Your task to perform on an android device: Go to CNN.com Image 0: 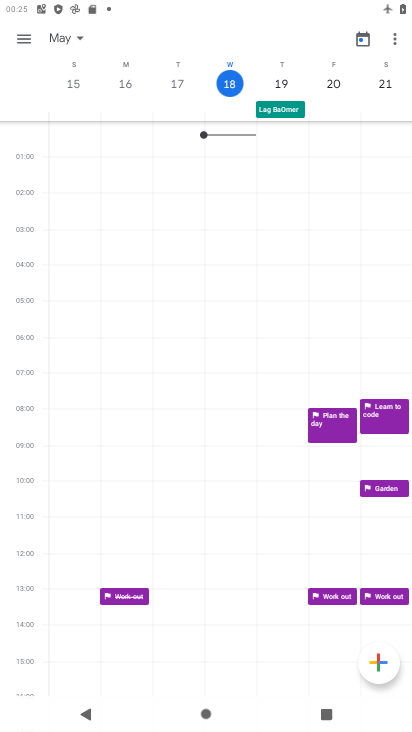
Step 0: press home button
Your task to perform on an android device: Go to CNN.com Image 1: 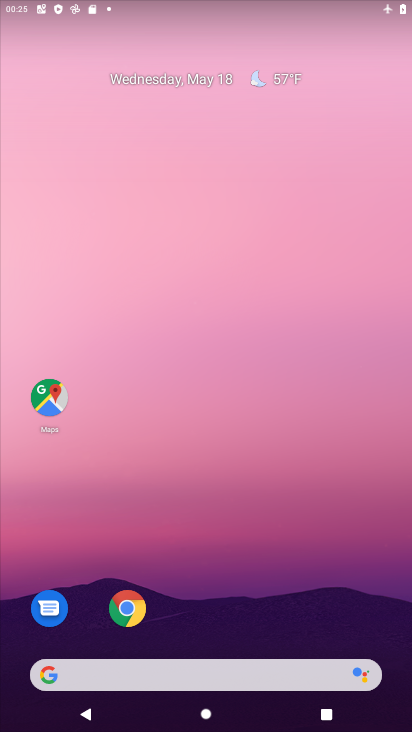
Step 1: click (132, 606)
Your task to perform on an android device: Go to CNN.com Image 2: 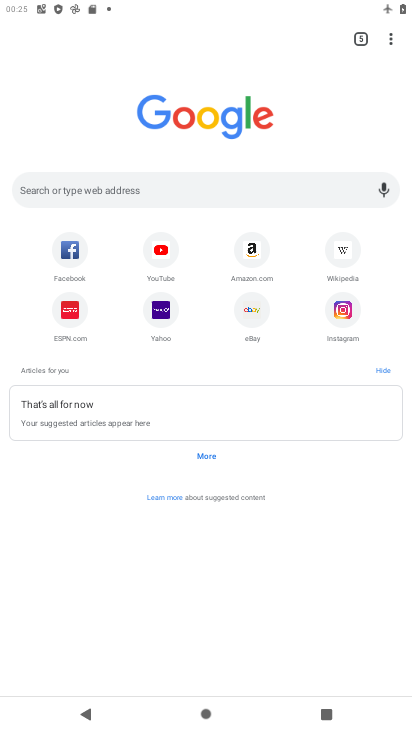
Step 2: click (120, 187)
Your task to perform on an android device: Go to CNN.com Image 3: 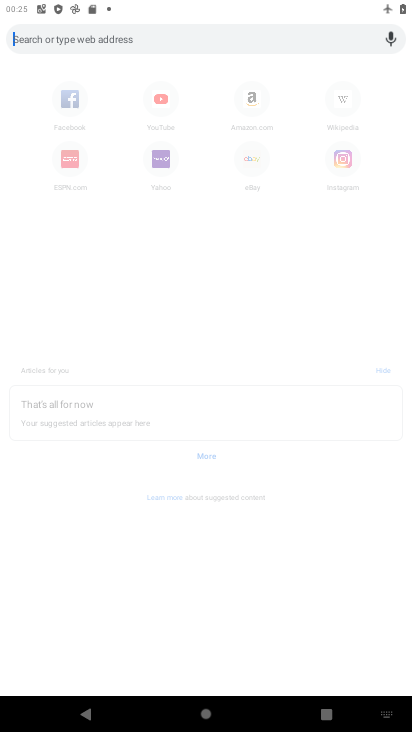
Step 3: type "cnn.com"
Your task to perform on an android device: Go to CNN.com Image 4: 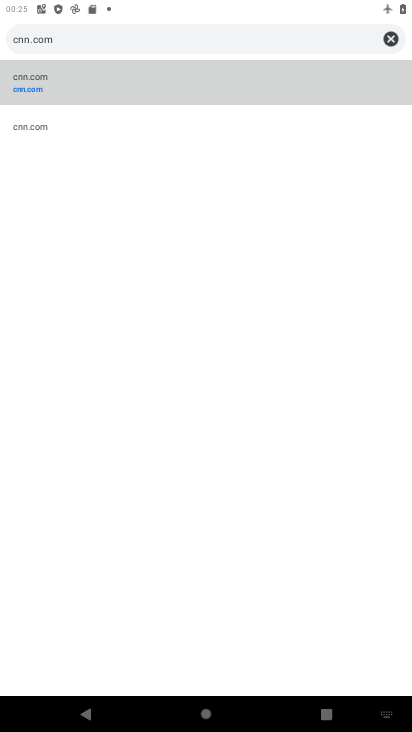
Step 4: click (55, 73)
Your task to perform on an android device: Go to CNN.com Image 5: 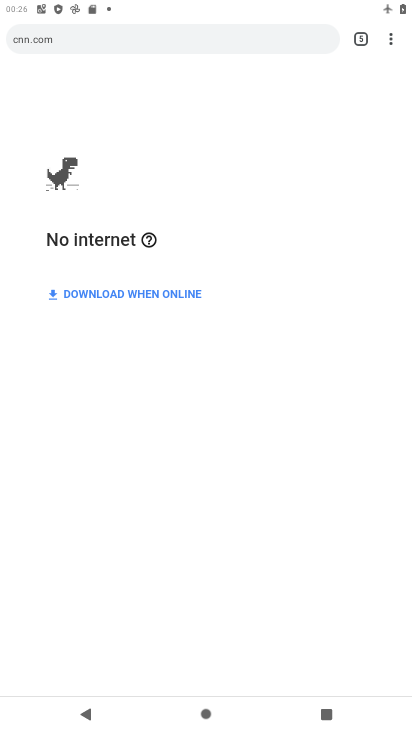
Step 5: task complete